Your task to perform on an android device: set default search engine in the chrome app Image 0: 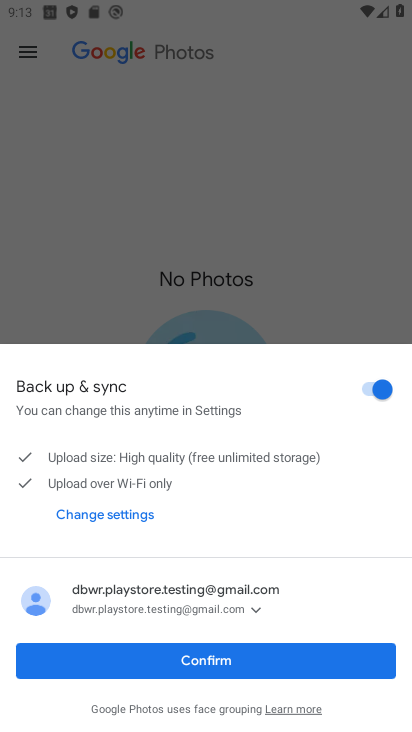
Step 0: press home button
Your task to perform on an android device: set default search engine in the chrome app Image 1: 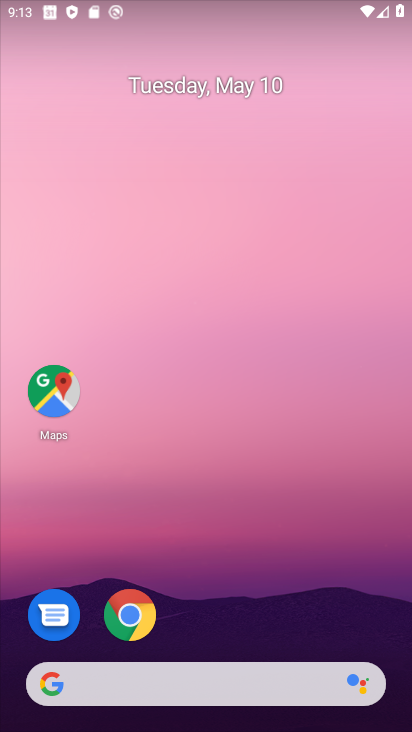
Step 1: click (107, 635)
Your task to perform on an android device: set default search engine in the chrome app Image 2: 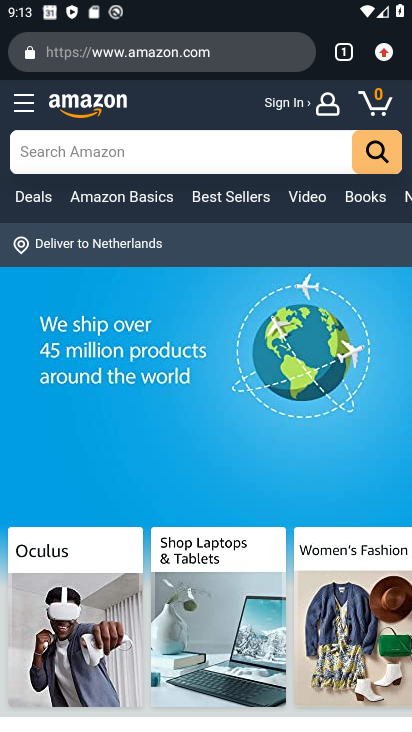
Step 2: drag from (383, 54) to (268, 645)
Your task to perform on an android device: set default search engine in the chrome app Image 3: 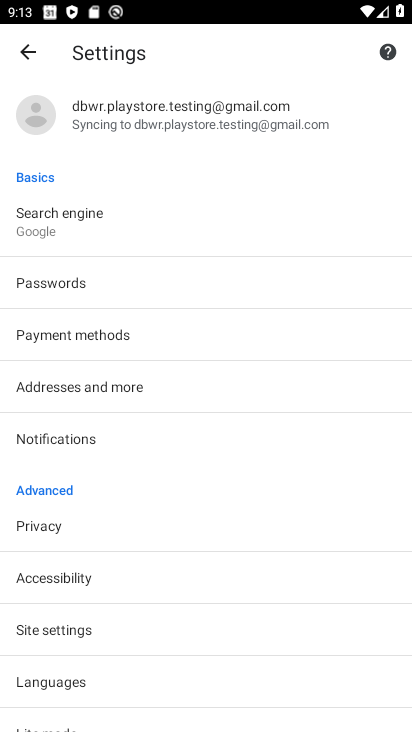
Step 3: click (55, 222)
Your task to perform on an android device: set default search engine in the chrome app Image 4: 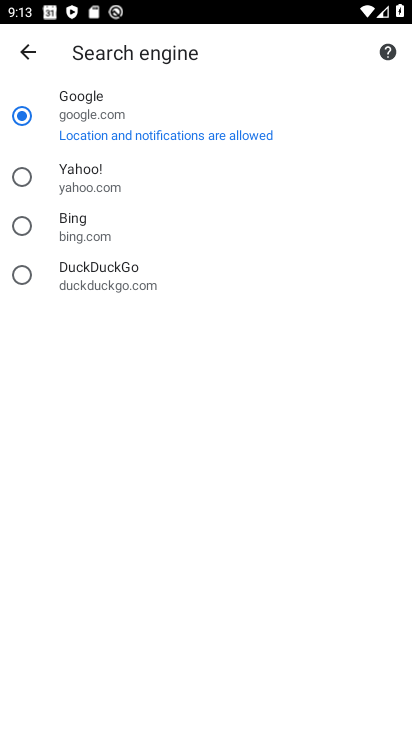
Step 4: click (74, 186)
Your task to perform on an android device: set default search engine in the chrome app Image 5: 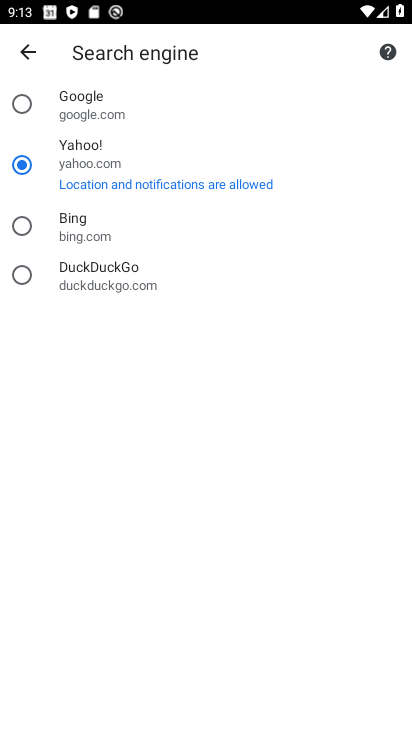
Step 5: task complete